Your task to perform on an android device: Go to Android settings Image 0: 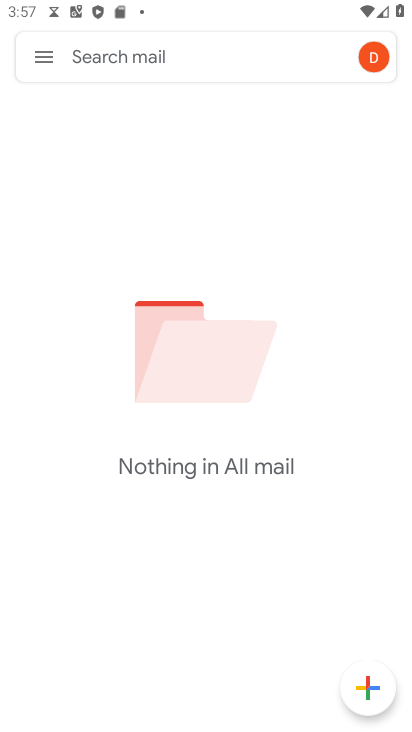
Step 0: press back button
Your task to perform on an android device: Go to Android settings Image 1: 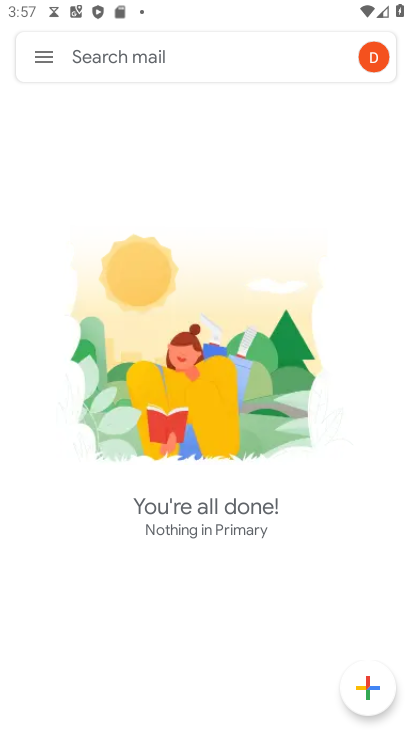
Step 1: press home button
Your task to perform on an android device: Go to Android settings Image 2: 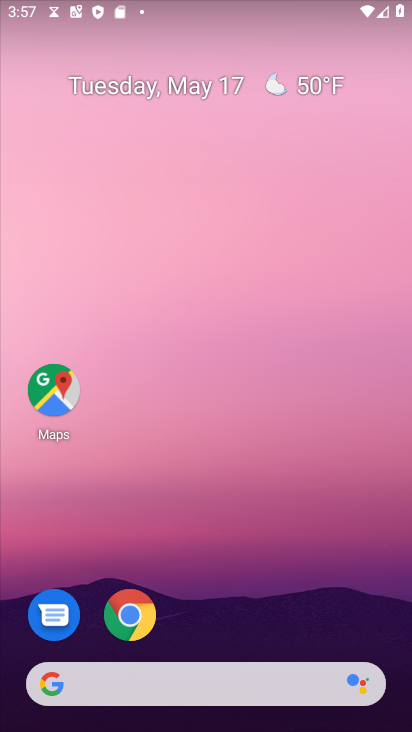
Step 2: drag from (227, 624) to (180, 145)
Your task to perform on an android device: Go to Android settings Image 3: 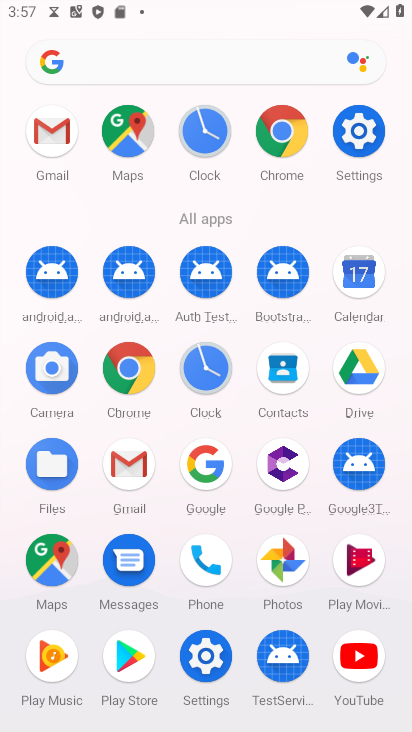
Step 3: click (340, 126)
Your task to perform on an android device: Go to Android settings Image 4: 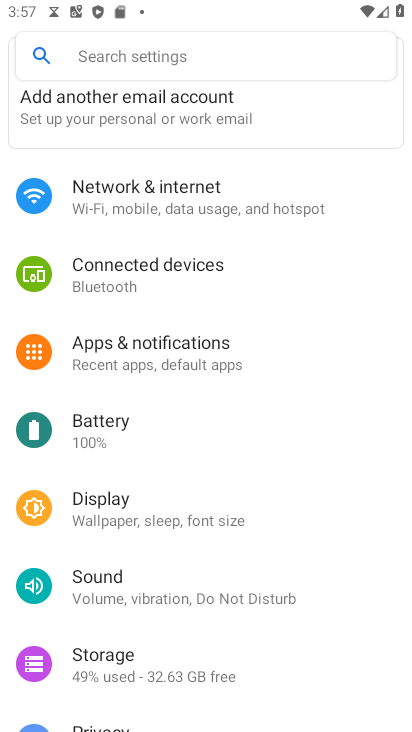
Step 4: drag from (215, 597) to (218, 102)
Your task to perform on an android device: Go to Android settings Image 5: 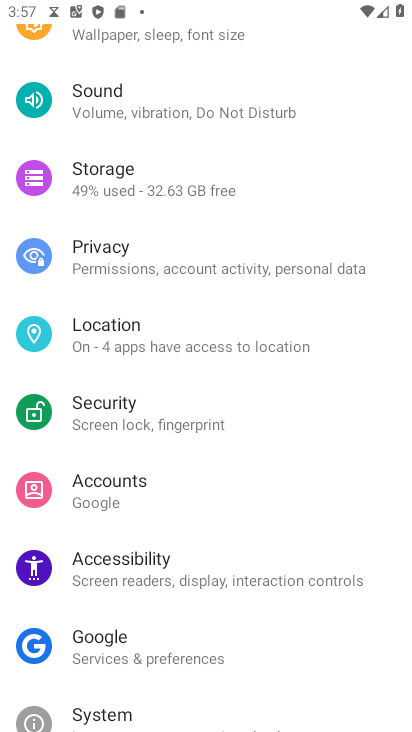
Step 5: drag from (233, 509) to (242, 92)
Your task to perform on an android device: Go to Android settings Image 6: 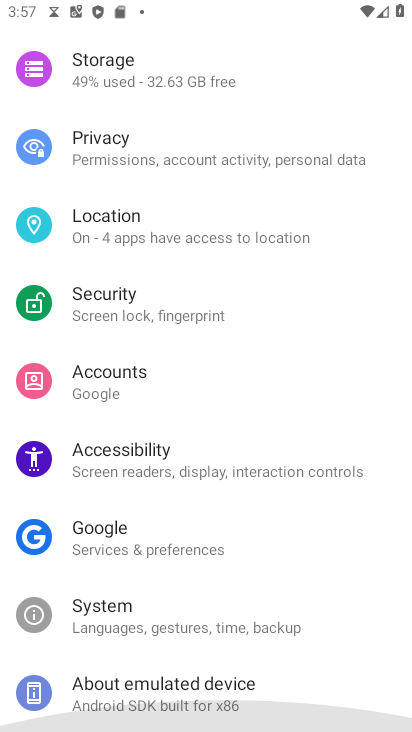
Step 6: drag from (247, 576) to (285, 210)
Your task to perform on an android device: Go to Android settings Image 7: 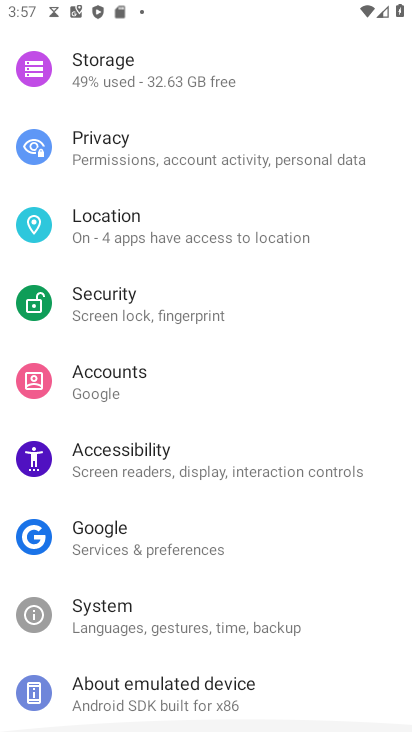
Step 7: drag from (276, 591) to (315, 166)
Your task to perform on an android device: Go to Android settings Image 8: 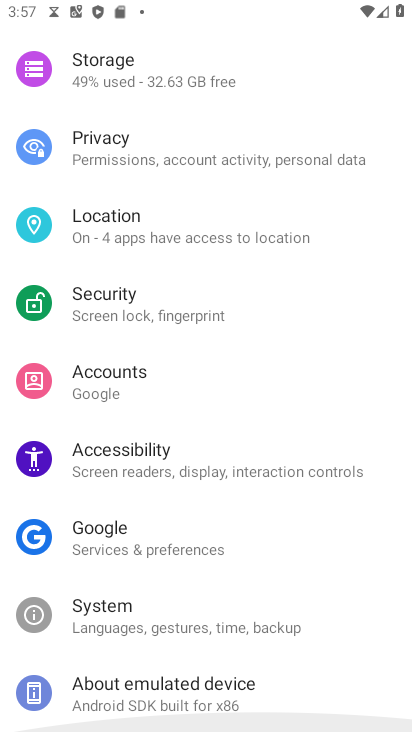
Step 8: click (140, 708)
Your task to perform on an android device: Go to Android settings Image 9: 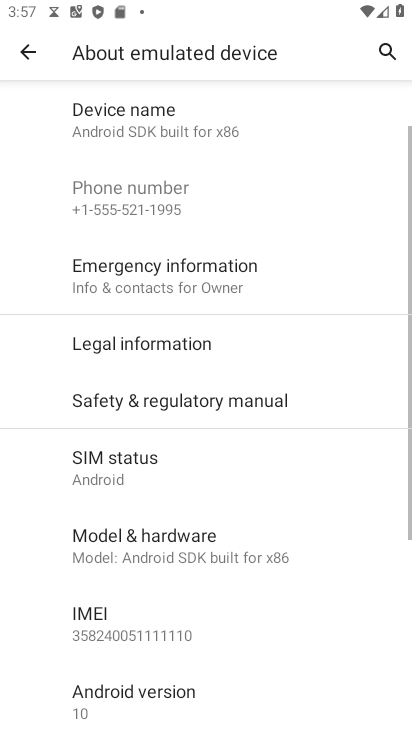
Step 9: task complete